Your task to perform on an android device: Open Maps and search for coffee Image 0: 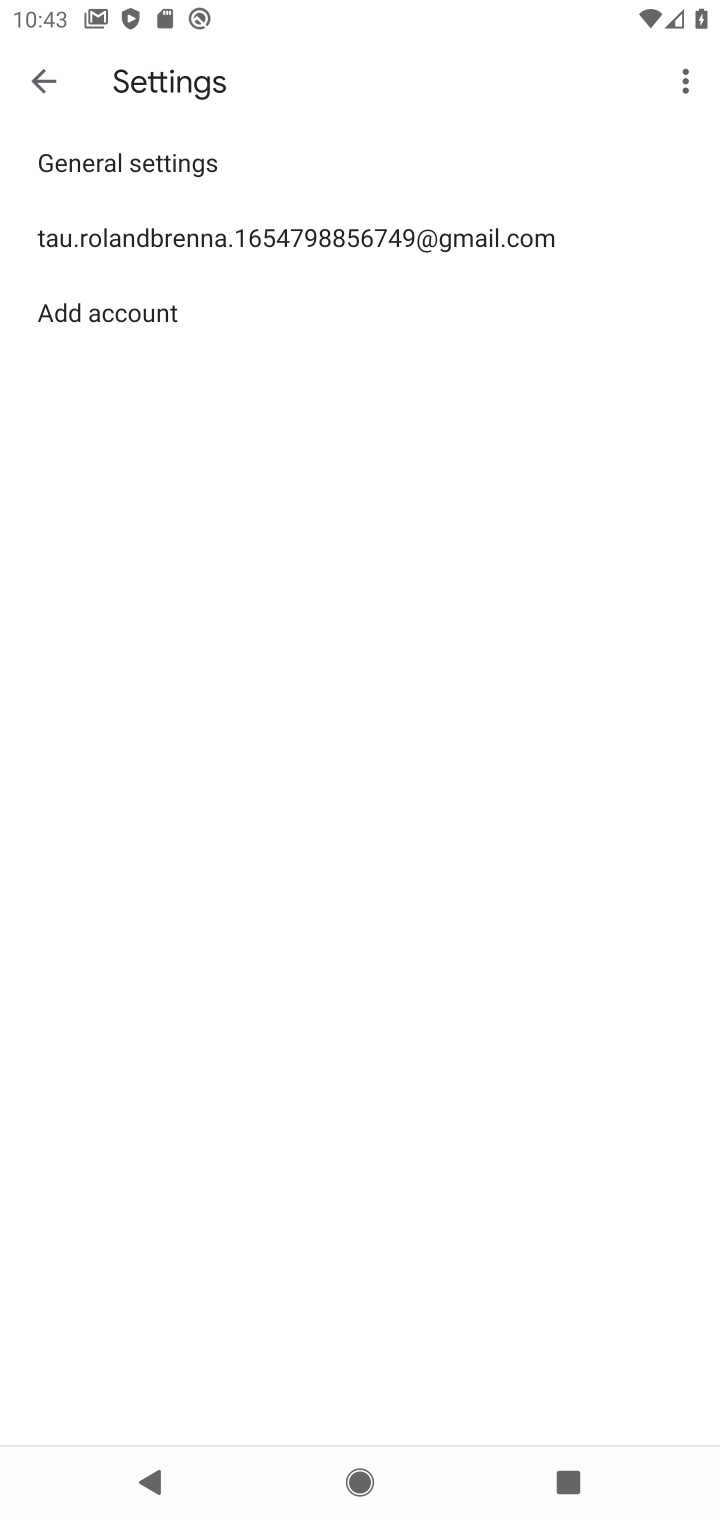
Step 0: press home button
Your task to perform on an android device: Open Maps and search for coffee Image 1: 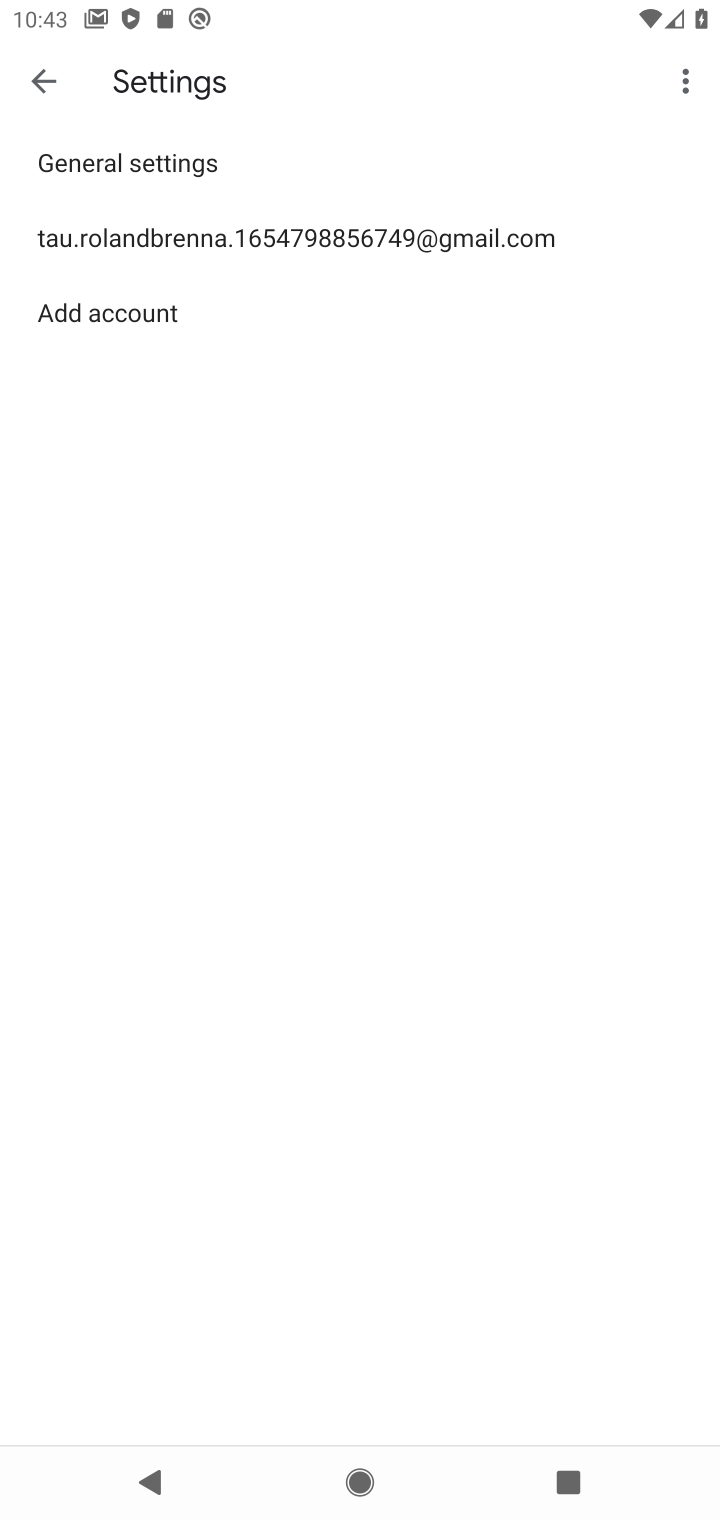
Step 1: press home button
Your task to perform on an android device: Open Maps and search for coffee Image 2: 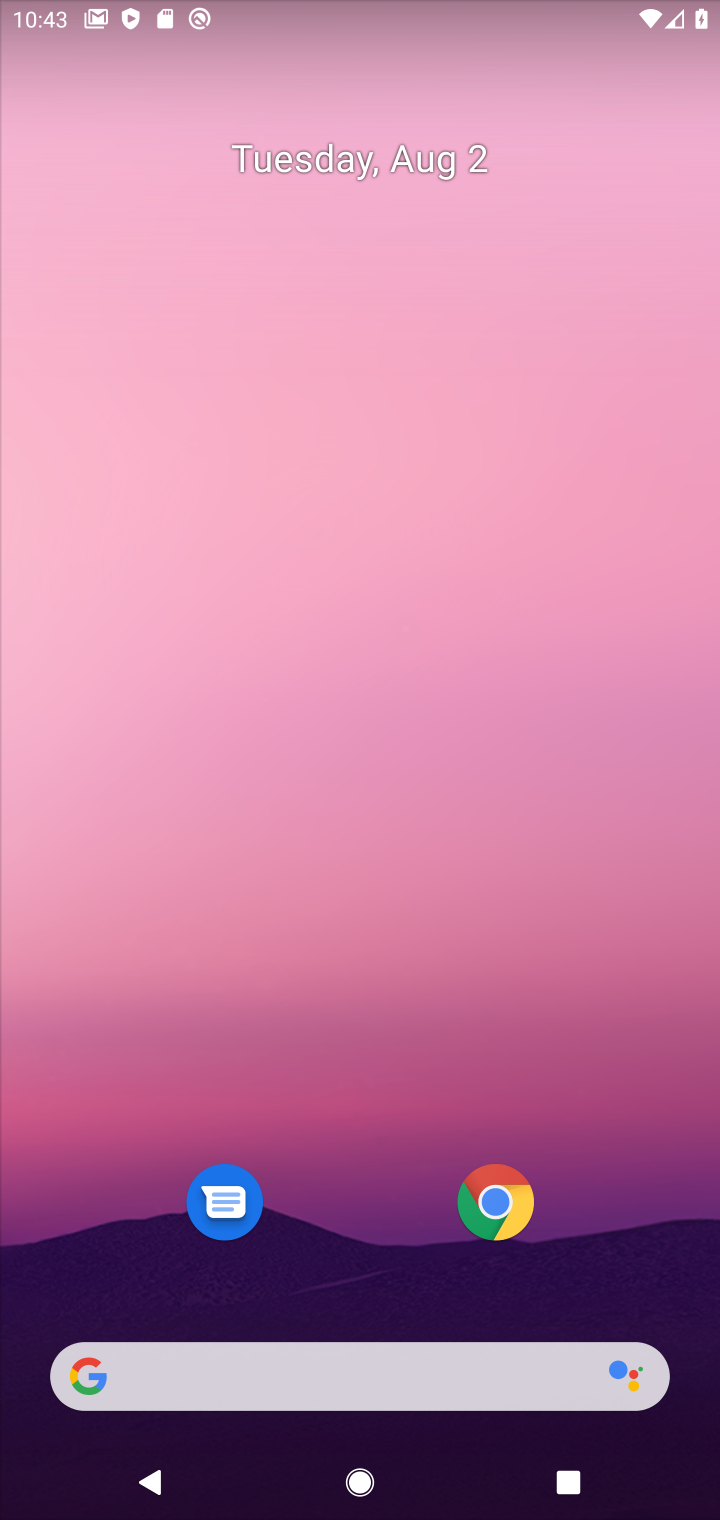
Step 2: drag from (640, 1300) to (449, 408)
Your task to perform on an android device: Open Maps and search for coffee Image 3: 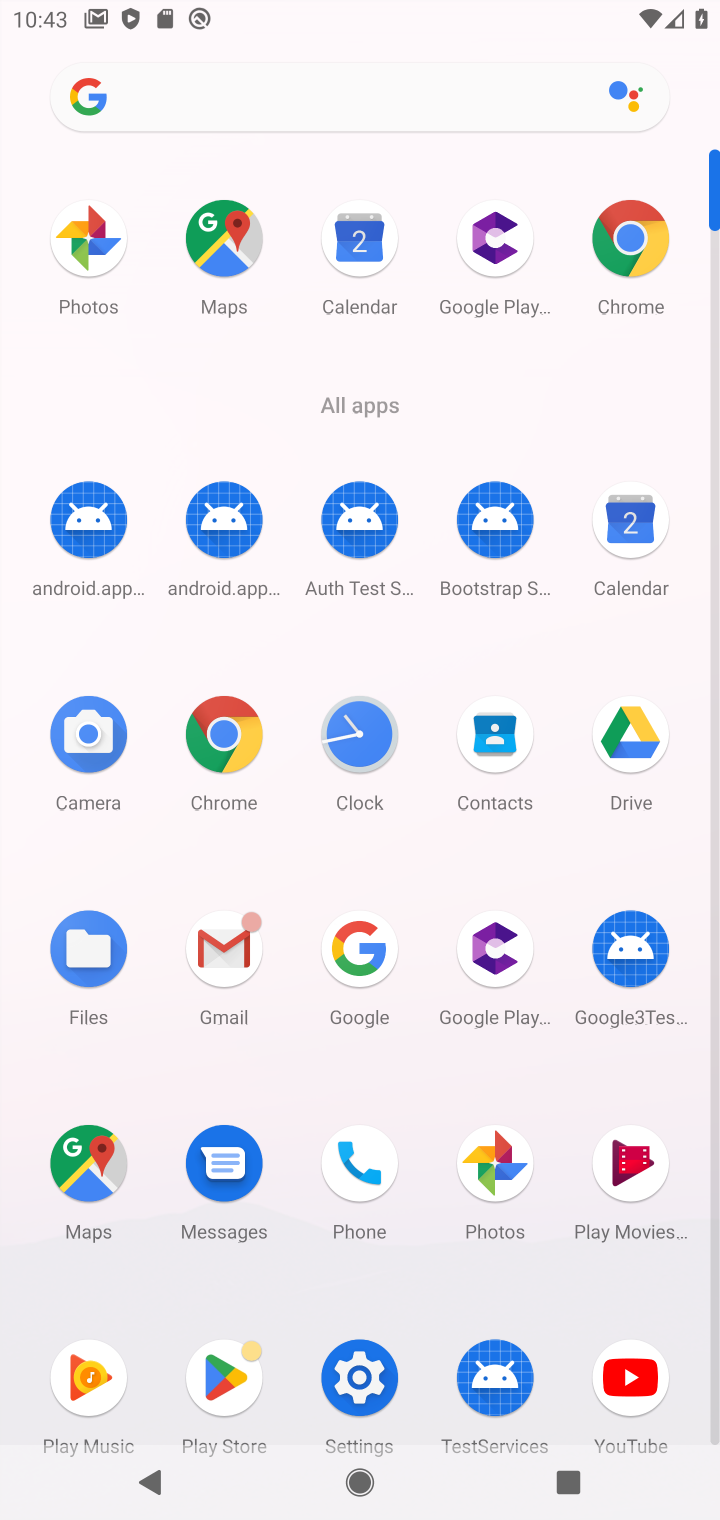
Step 3: click (218, 236)
Your task to perform on an android device: Open Maps and search for coffee Image 4: 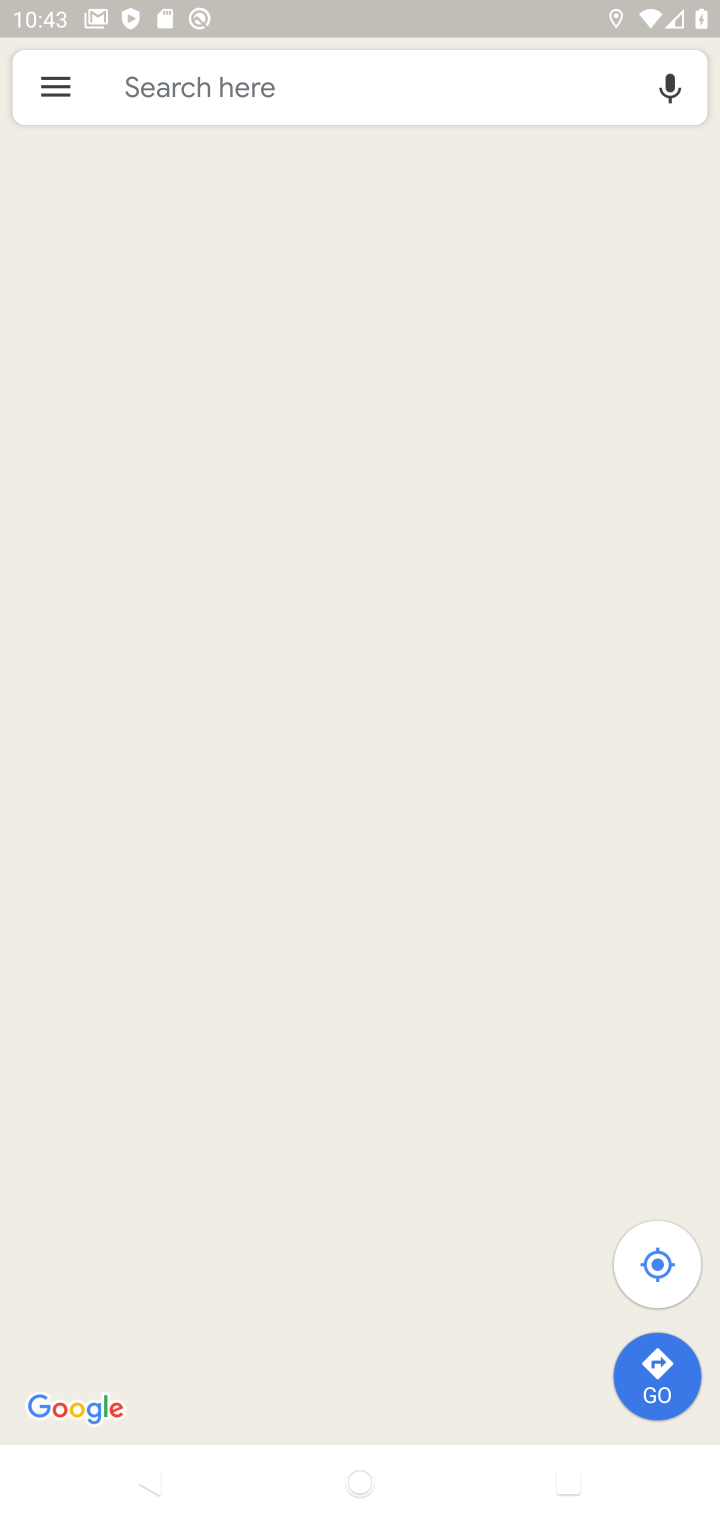
Step 4: click (234, 70)
Your task to perform on an android device: Open Maps and search for coffee Image 5: 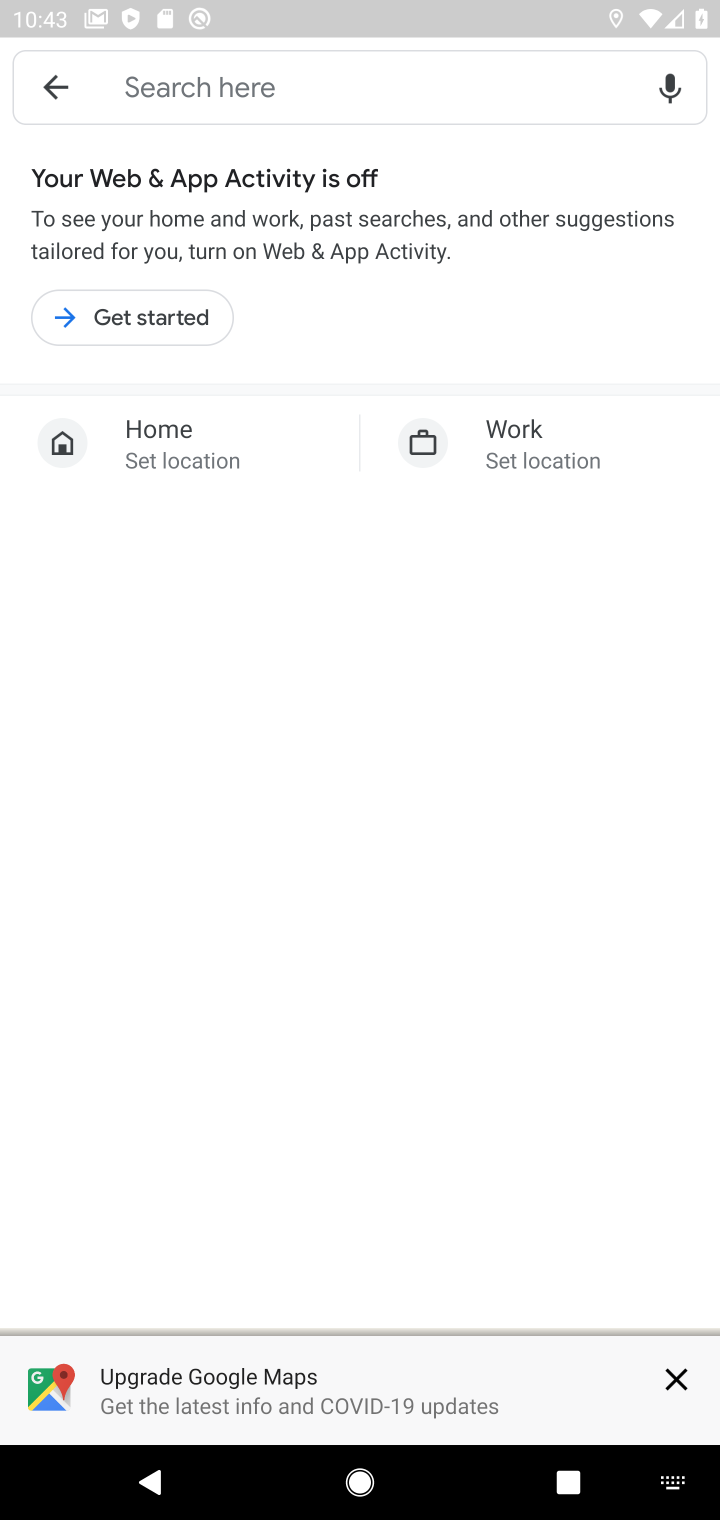
Step 5: type "coffee"
Your task to perform on an android device: Open Maps and search for coffee Image 6: 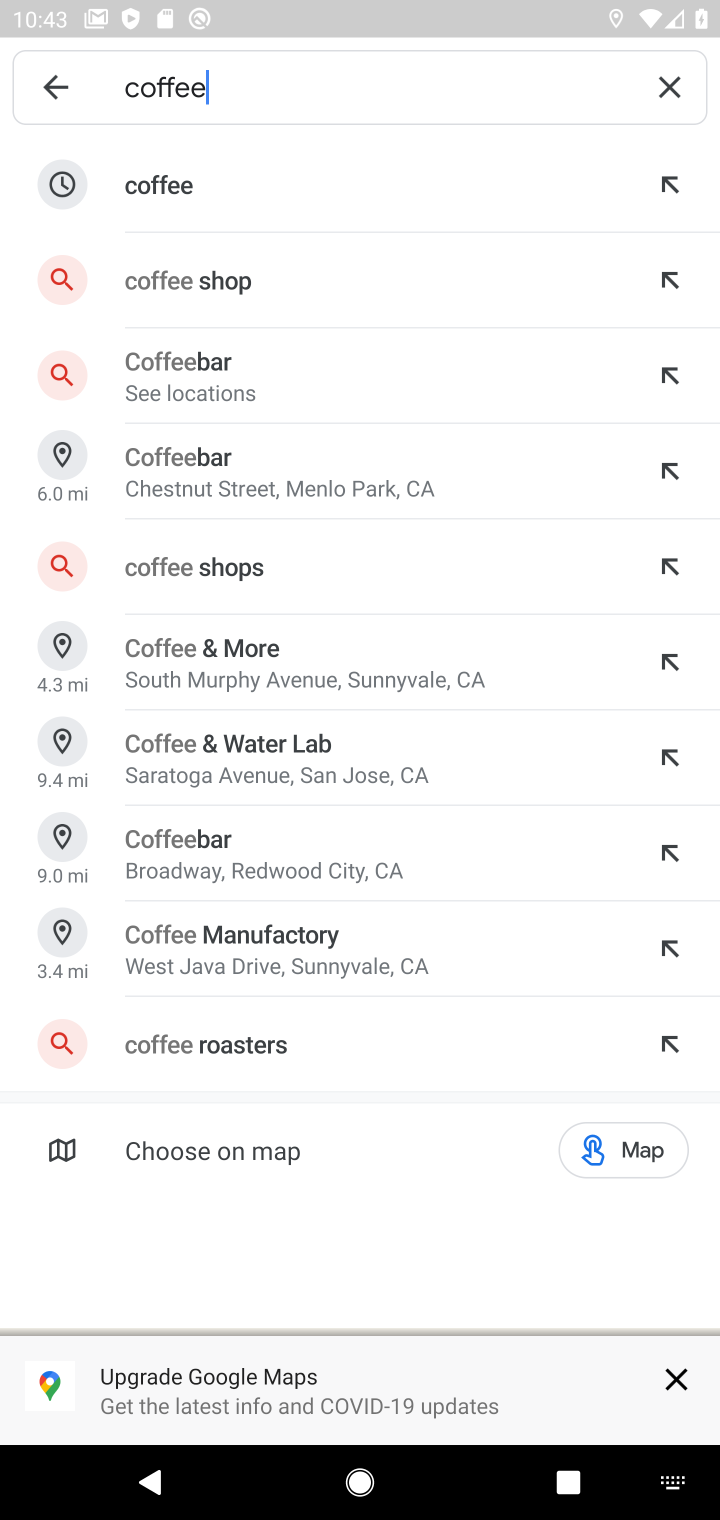
Step 6: click (167, 185)
Your task to perform on an android device: Open Maps and search for coffee Image 7: 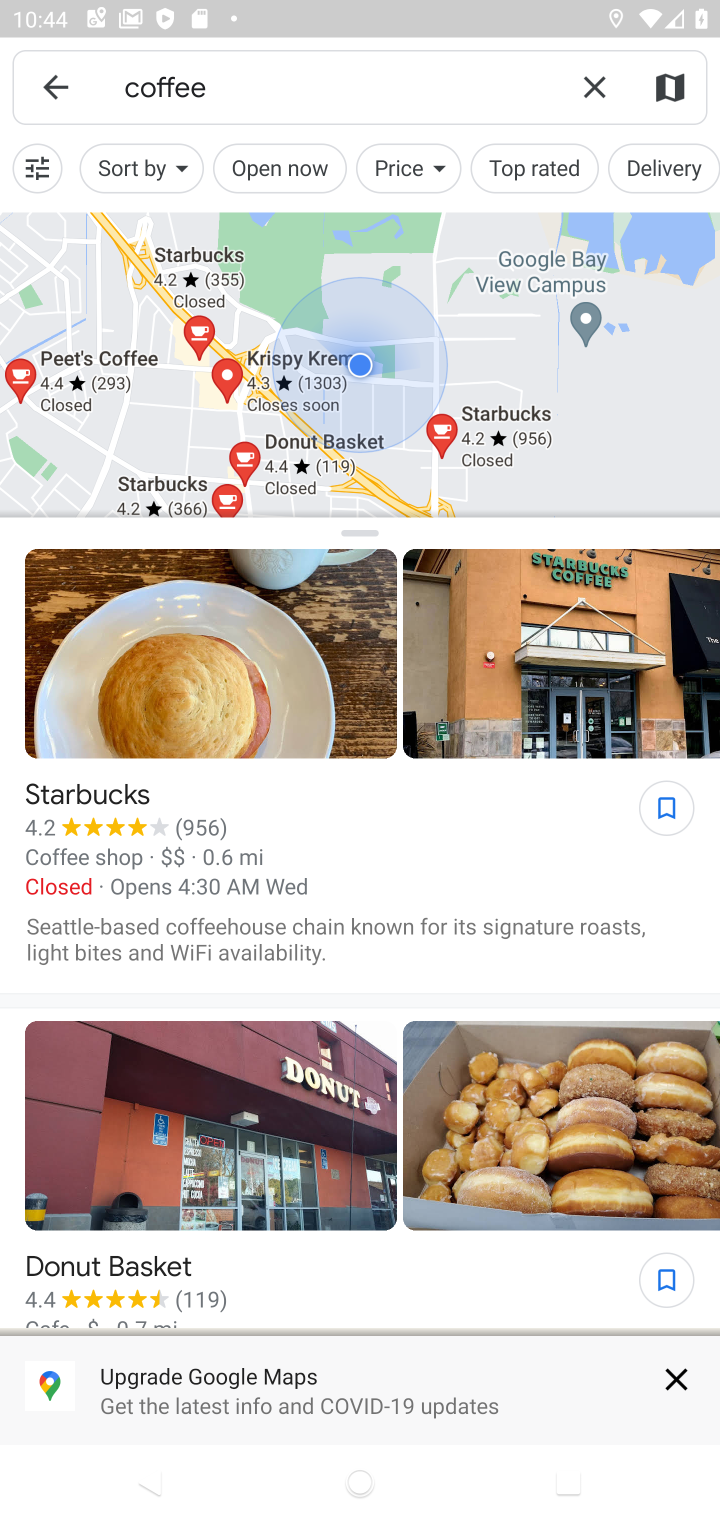
Step 7: task complete